Your task to perform on an android device: Open CNN.com Image 0: 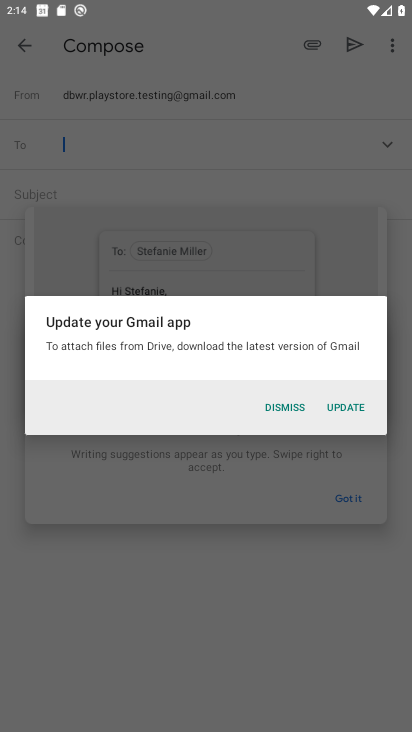
Step 0: press home button
Your task to perform on an android device: Open CNN.com Image 1: 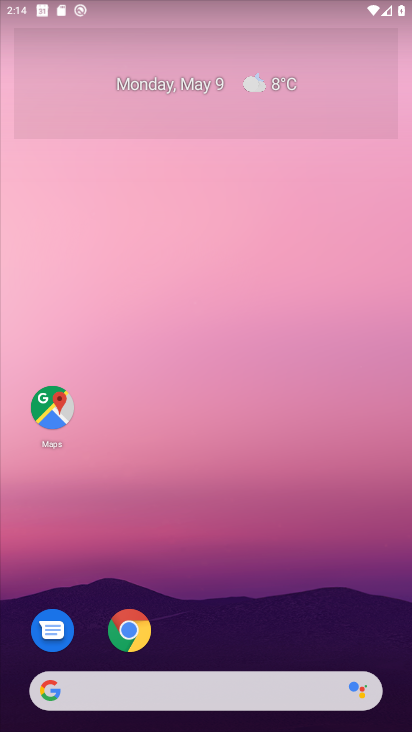
Step 1: click (142, 626)
Your task to perform on an android device: Open CNN.com Image 2: 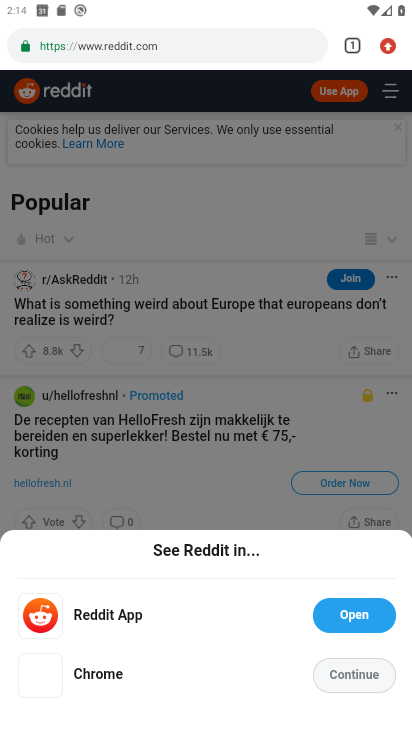
Step 2: click (251, 53)
Your task to perform on an android device: Open CNN.com Image 3: 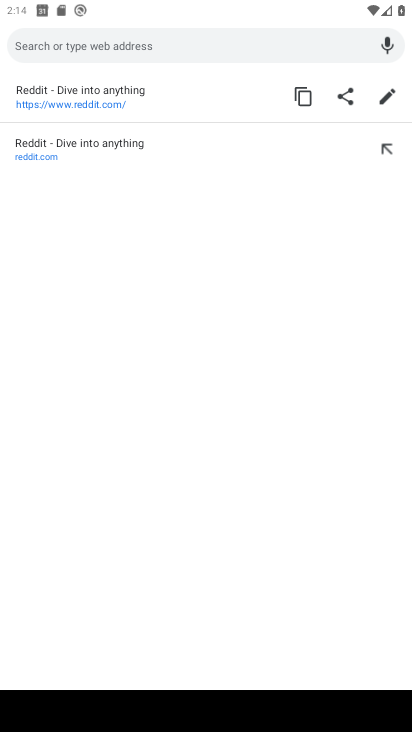
Step 3: type "CNN.com"
Your task to perform on an android device: Open CNN.com Image 4: 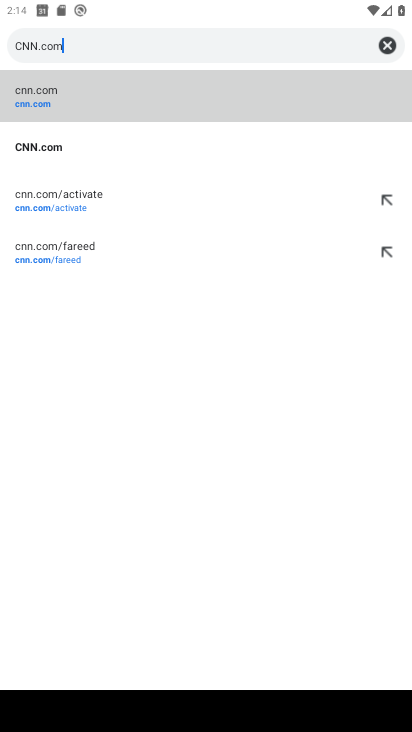
Step 4: click (198, 106)
Your task to perform on an android device: Open CNN.com Image 5: 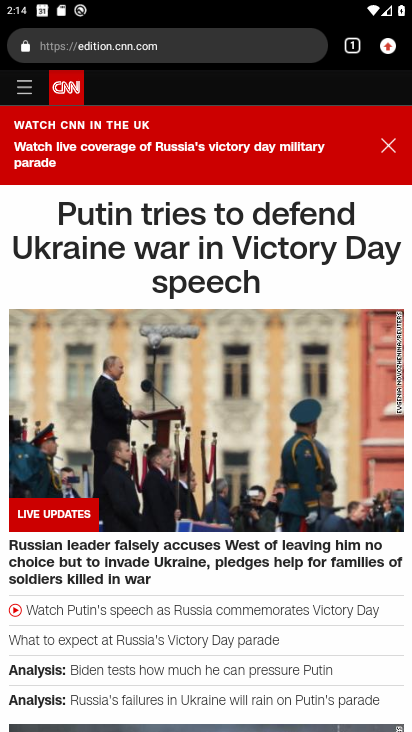
Step 5: task complete